Your task to perform on an android device: Search for razer thresher on ebay, select the first entry, and add it to the cart. Image 0: 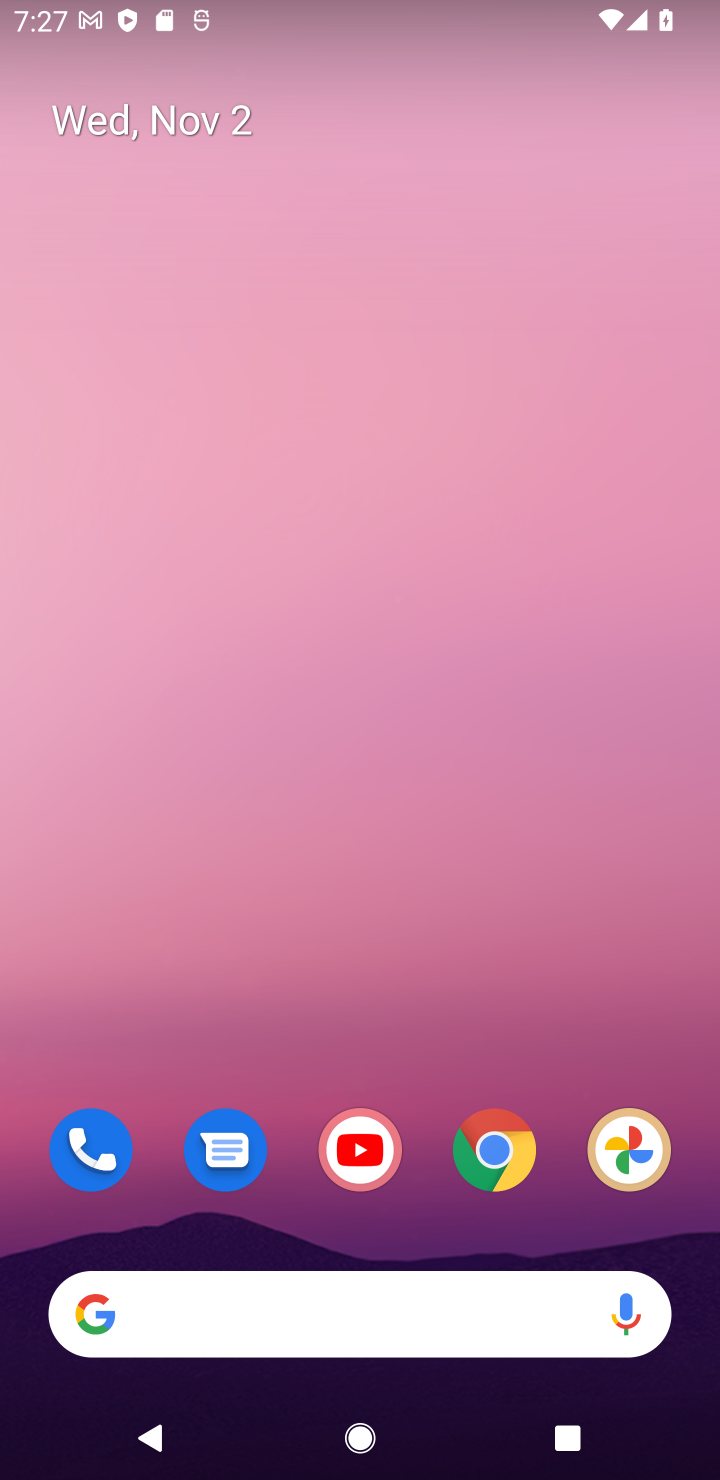
Step 0: click (500, 1144)
Your task to perform on an android device: Search for razer thresher on ebay, select the first entry, and add it to the cart. Image 1: 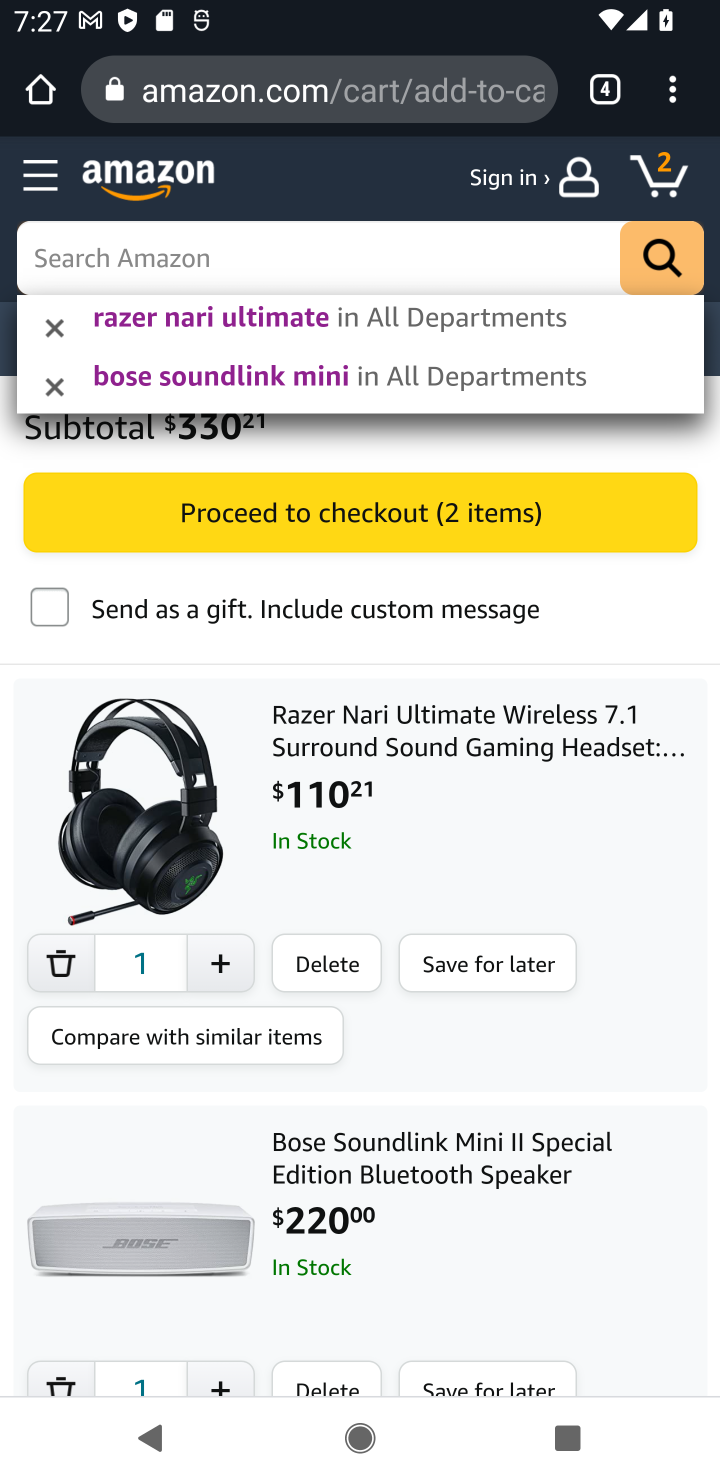
Step 1: click (596, 81)
Your task to perform on an android device: Search for razer thresher on ebay, select the first entry, and add it to the cart. Image 2: 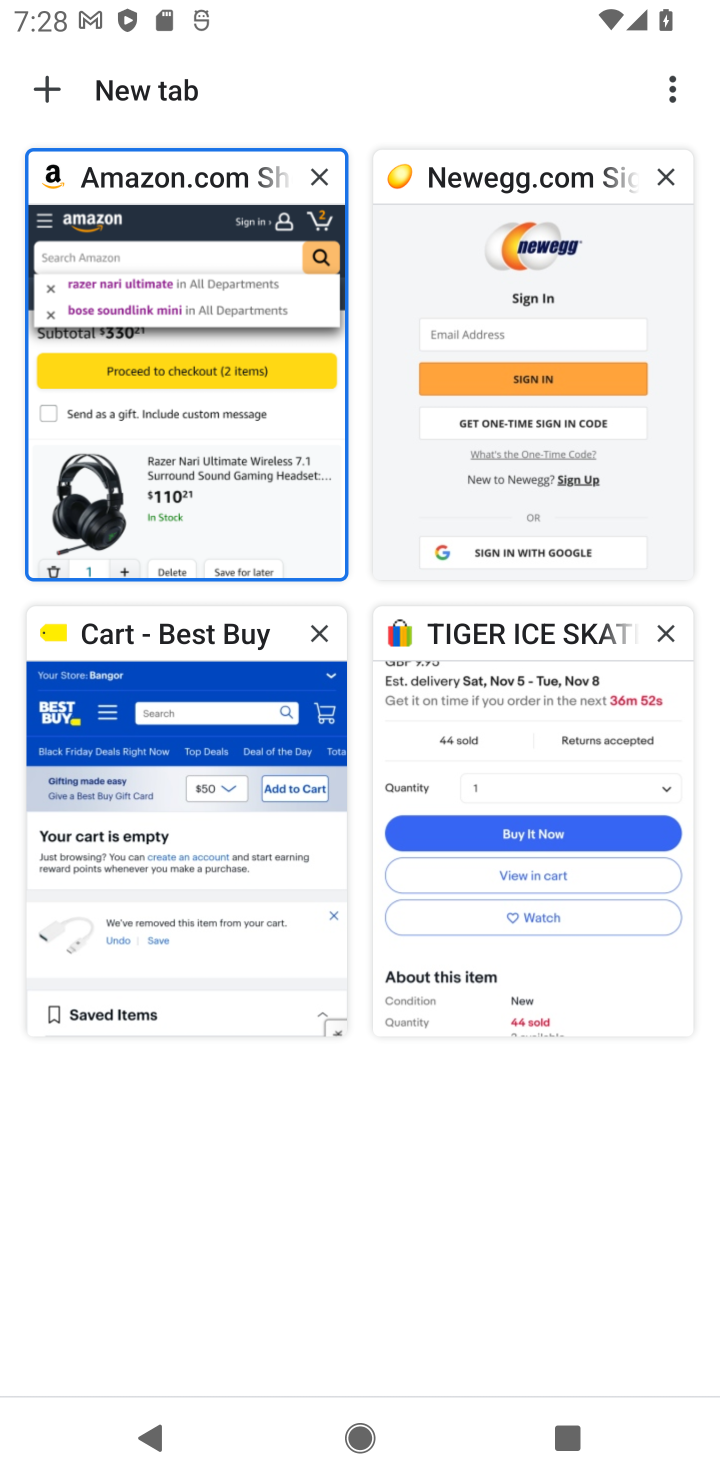
Step 2: click (617, 766)
Your task to perform on an android device: Search for razer thresher on ebay, select the first entry, and add it to the cart. Image 3: 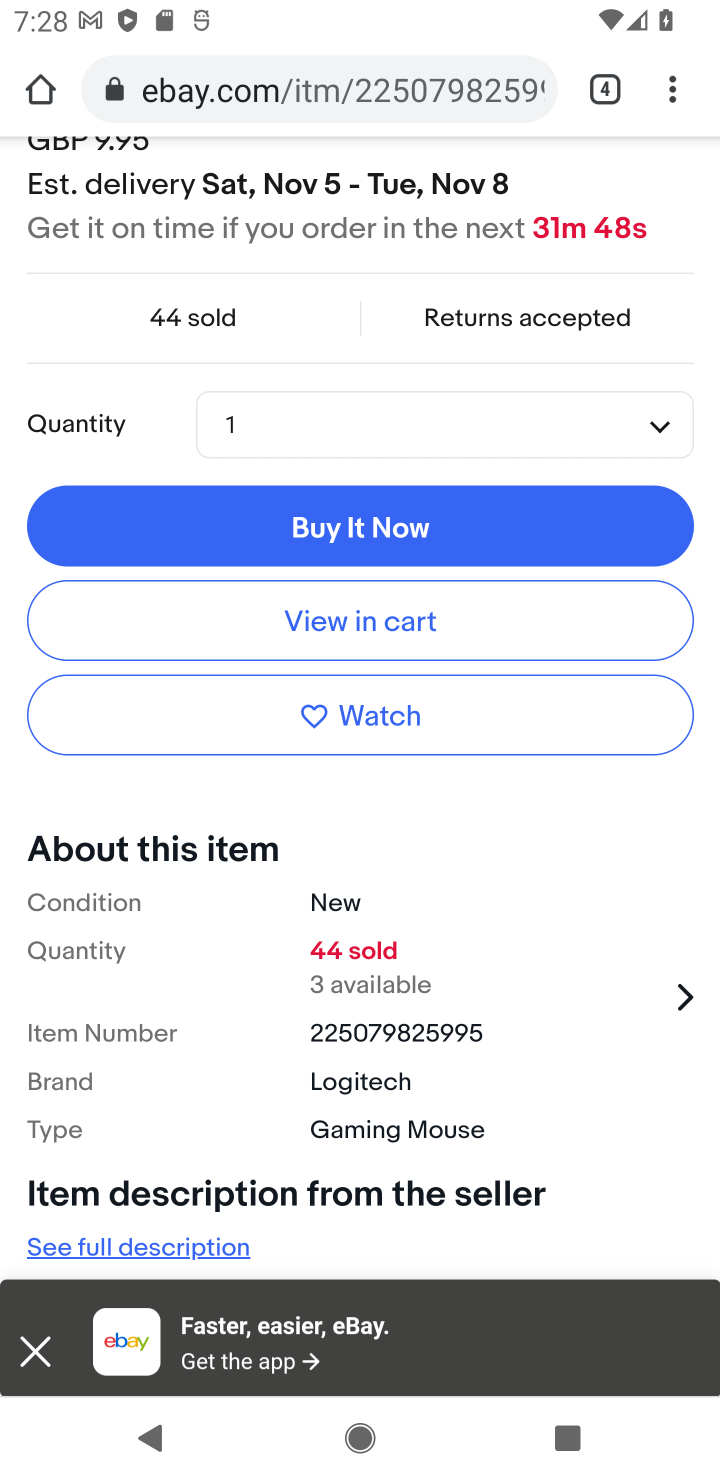
Step 3: drag from (571, 233) to (477, 1286)
Your task to perform on an android device: Search for razer thresher on ebay, select the first entry, and add it to the cart. Image 4: 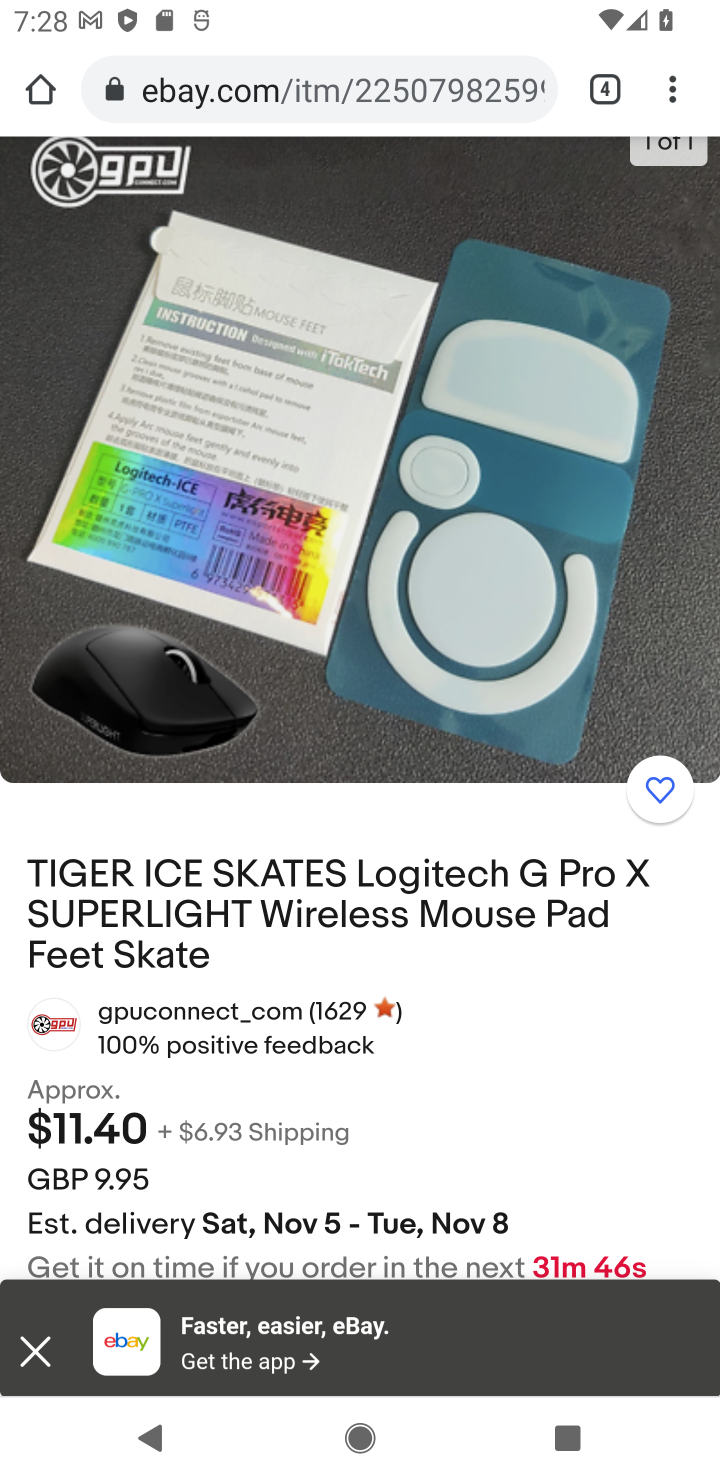
Step 4: click (507, 1236)
Your task to perform on an android device: Search for razer thresher on ebay, select the first entry, and add it to the cart. Image 5: 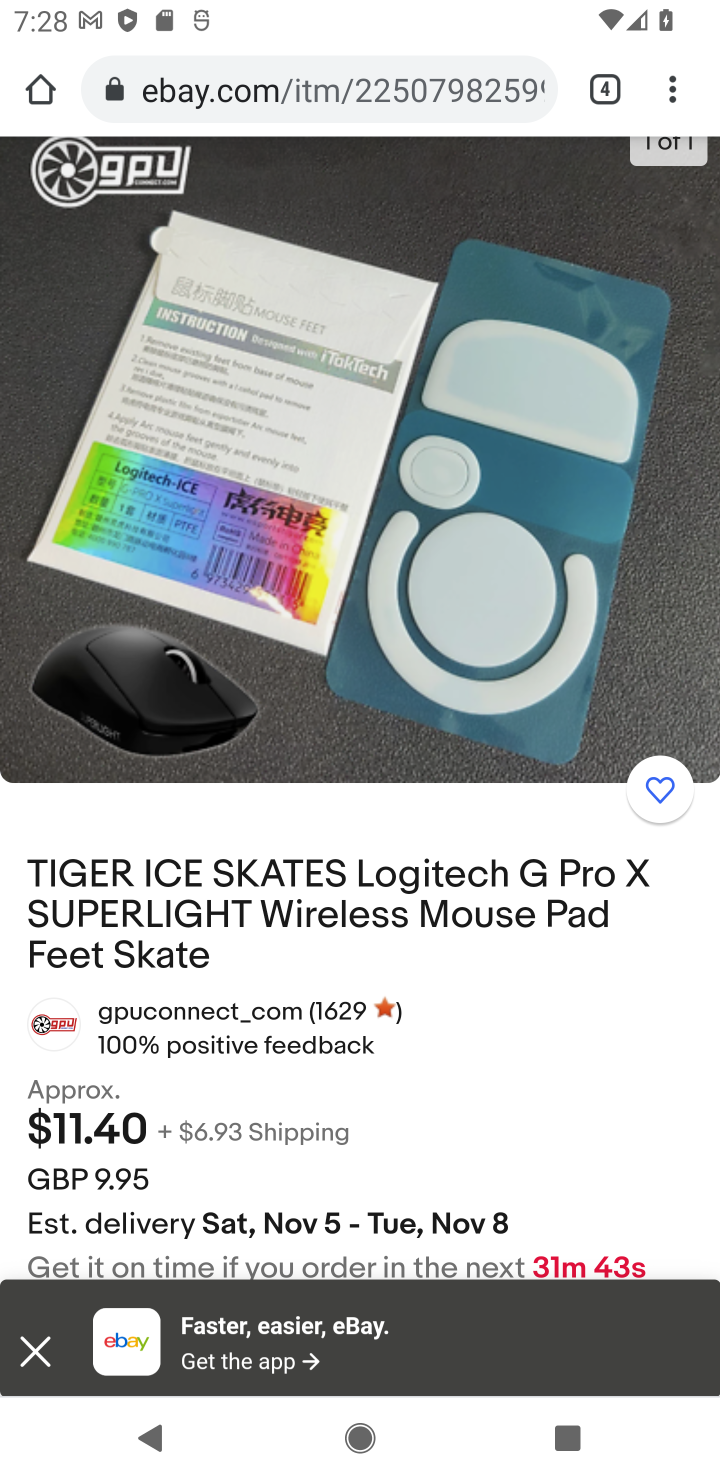
Step 5: drag from (506, 231) to (449, 1135)
Your task to perform on an android device: Search for razer thresher on ebay, select the first entry, and add it to the cart. Image 6: 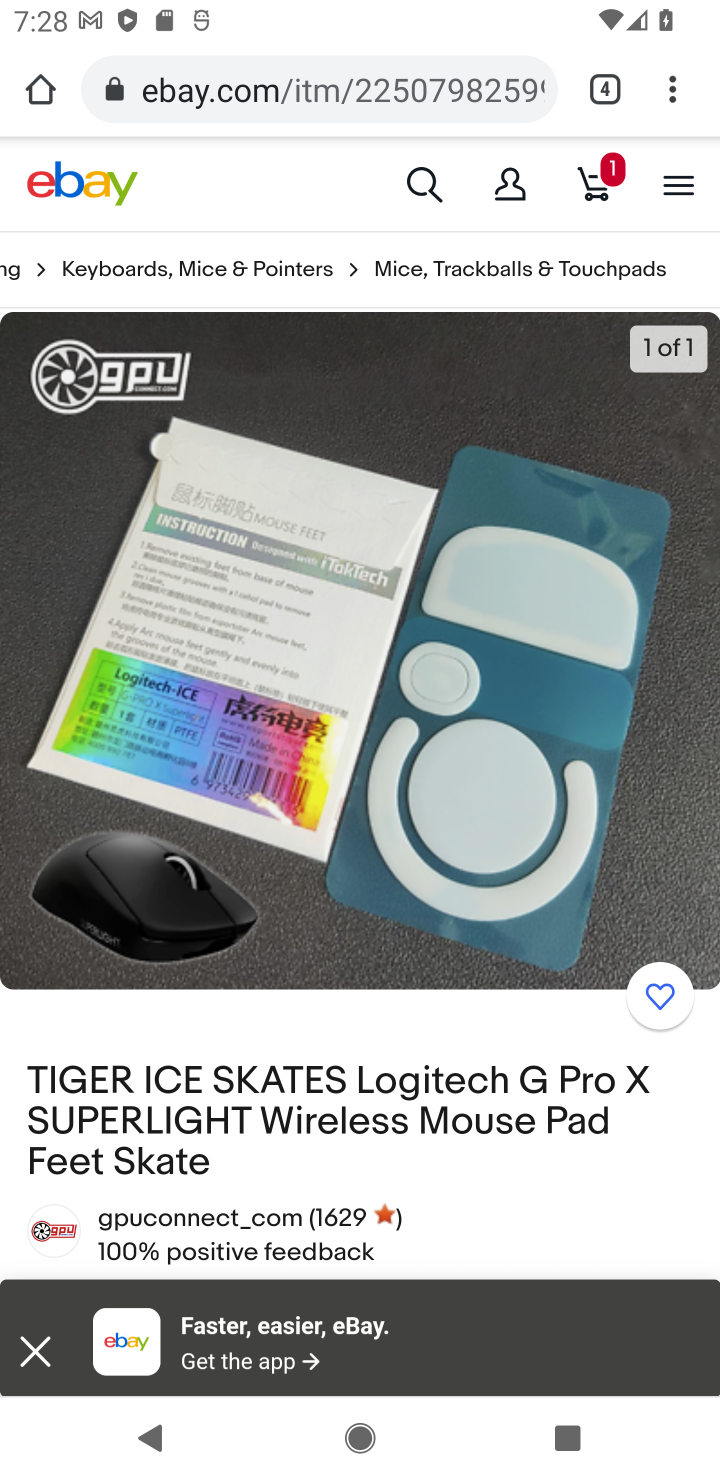
Step 6: click (418, 183)
Your task to perform on an android device: Search for razer thresher on ebay, select the first entry, and add it to the cart. Image 7: 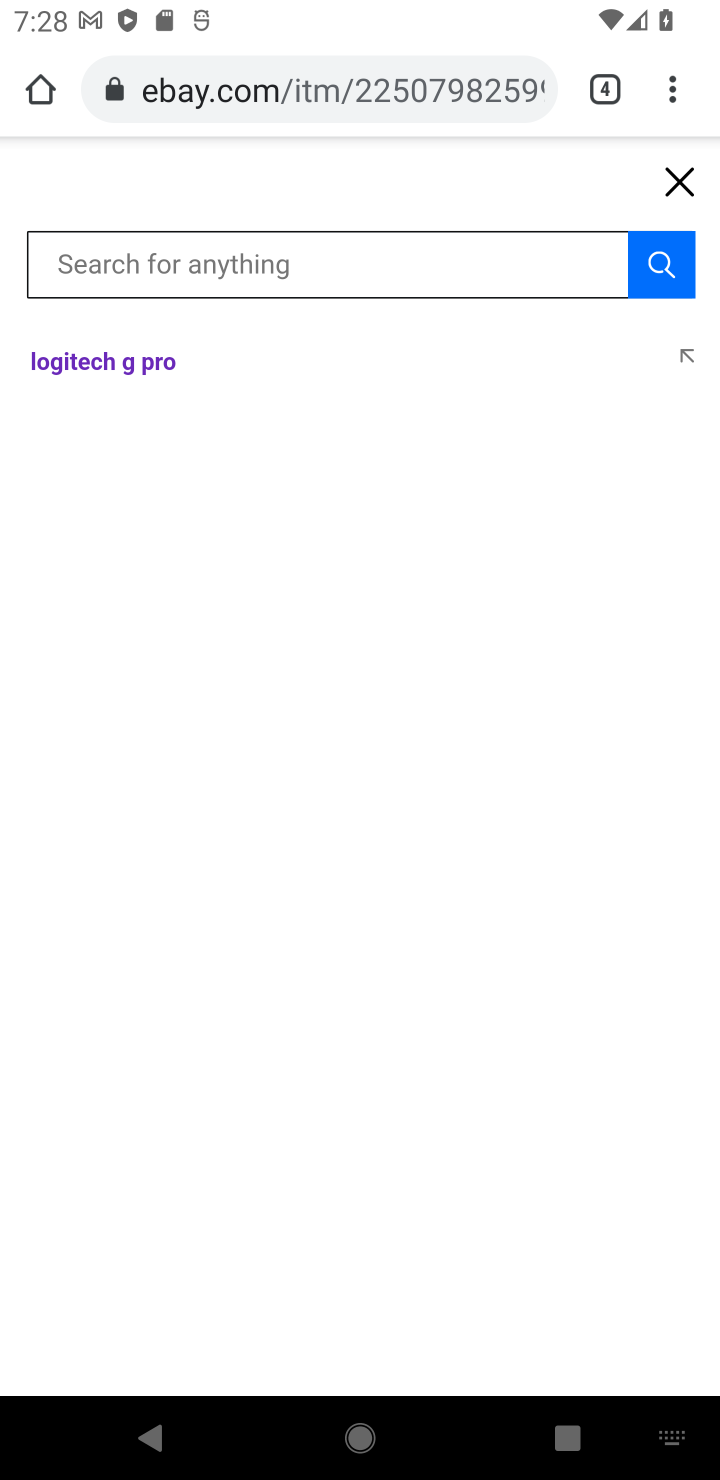
Step 7: click (495, 271)
Your task to perform on an android device: Search for razer thresher on ebay, select the first entry, and add it to the cart. Image 8: 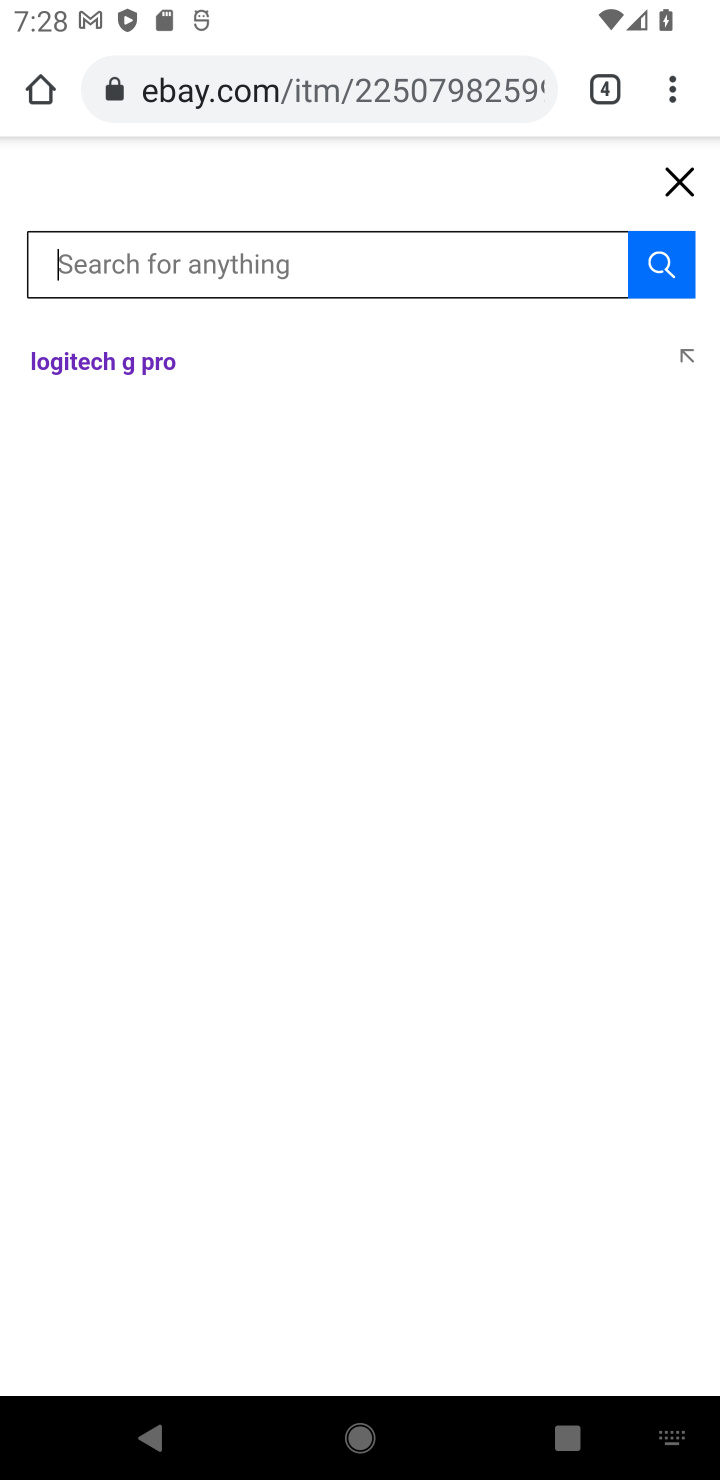
Step 8: type "razer thresher"
Your task to perform on an android device: Search for razer thresher on ebay, select the first entry, and add it to the cart. Image 9: 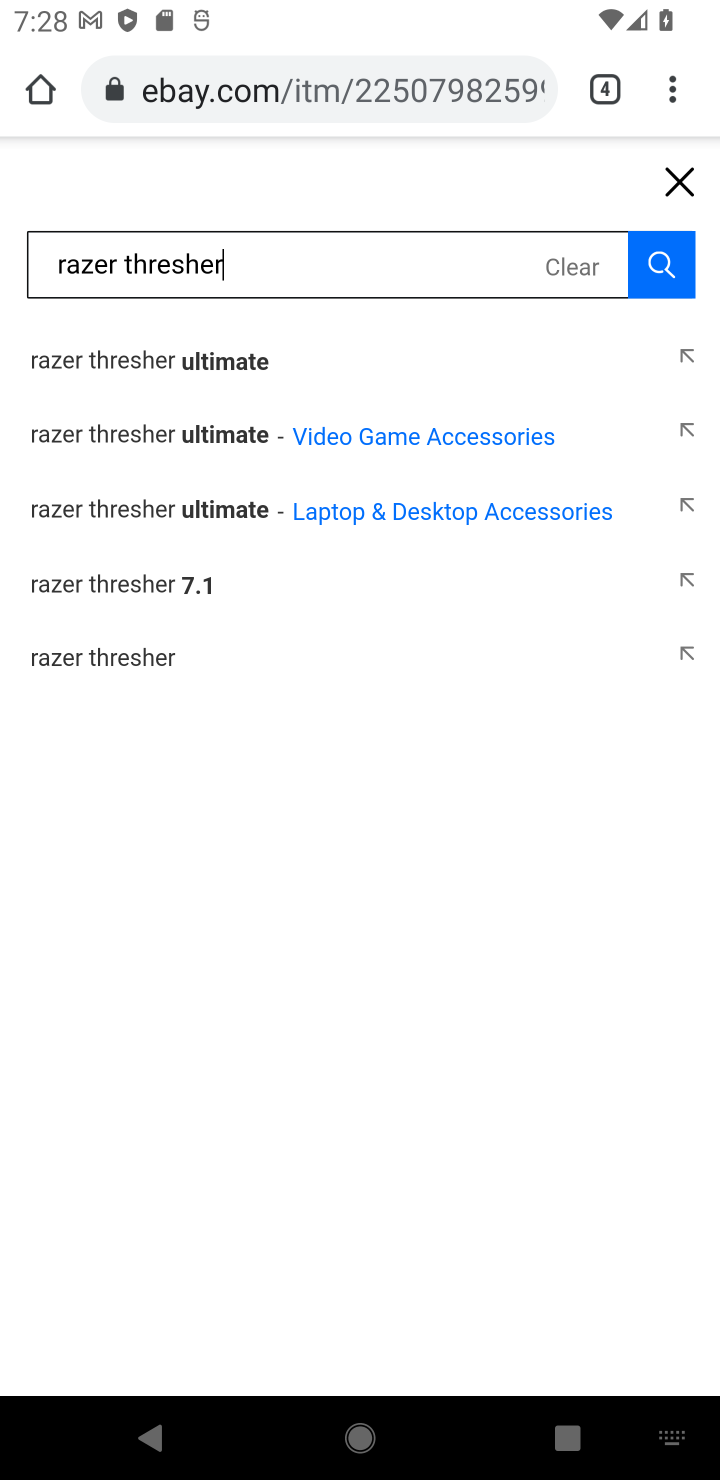
Step 9: click (103, 352)
Your task to perform on an android device: Search for razer thresher on ebay, select the first entry, and add it to the cart. Image 10: 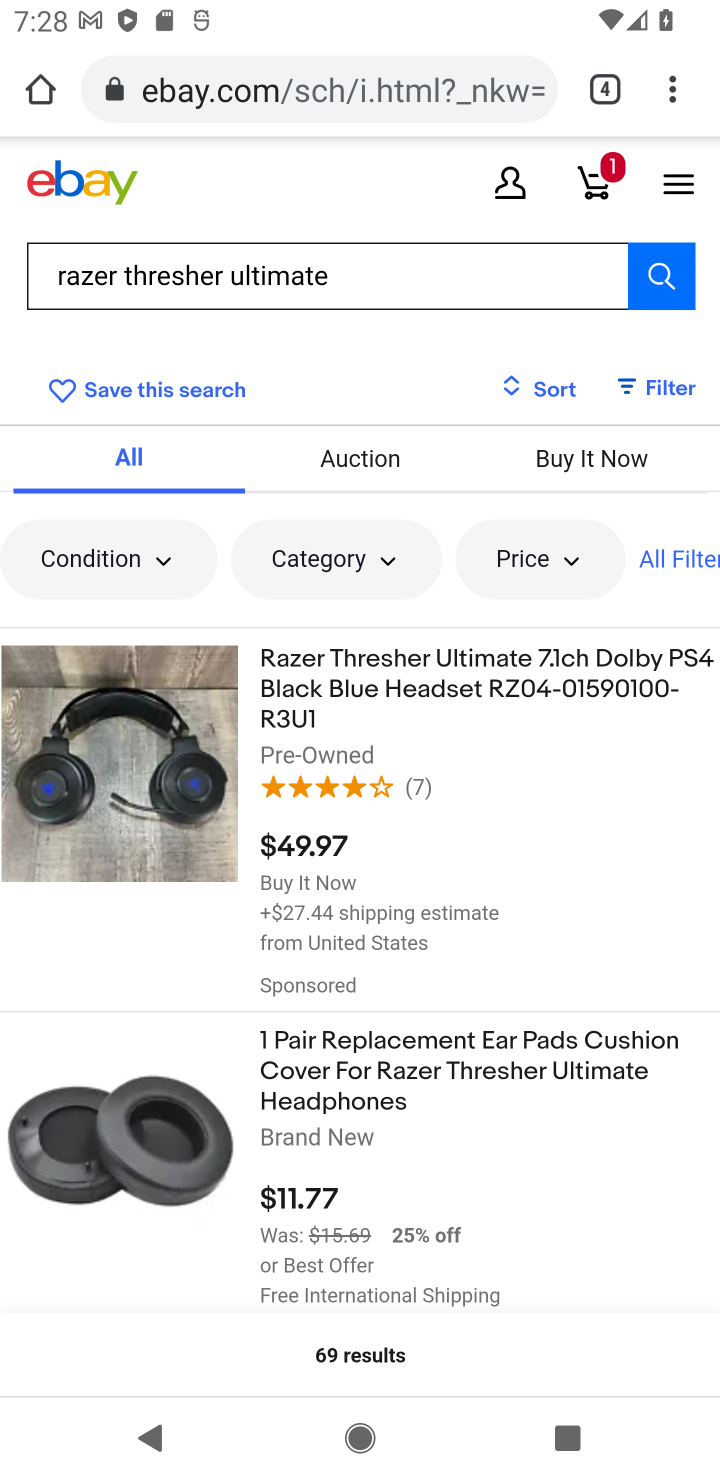
Step 10: click (348, 655)
Your task to perform on an android device: Search for razer thresher on ebay, select the first entry, and add it to the cart. Image 11: 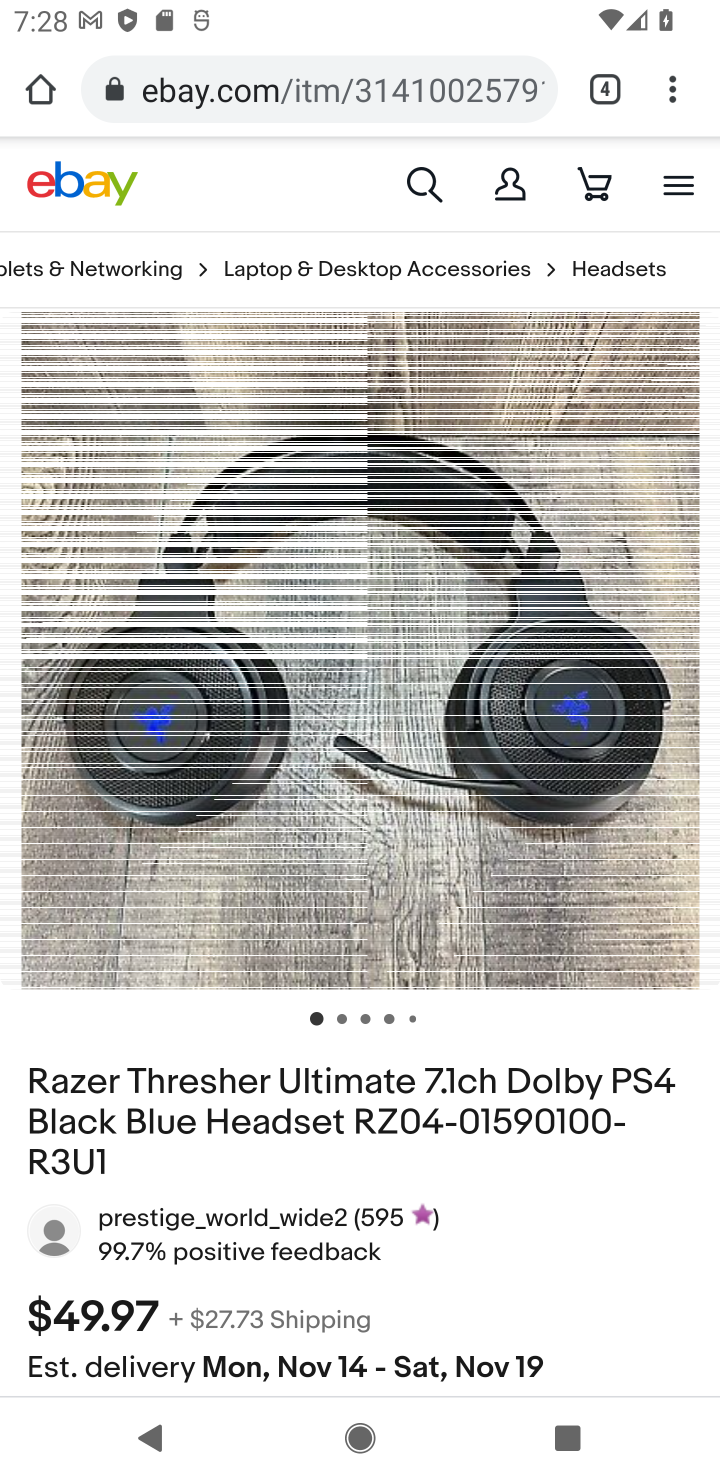
Step 11: drag from (545, 1138) to (625, 566)
Your task to perform on an android device: Search for razer thresher on ebay, select the first entry, and add it to the cart. Image 12: 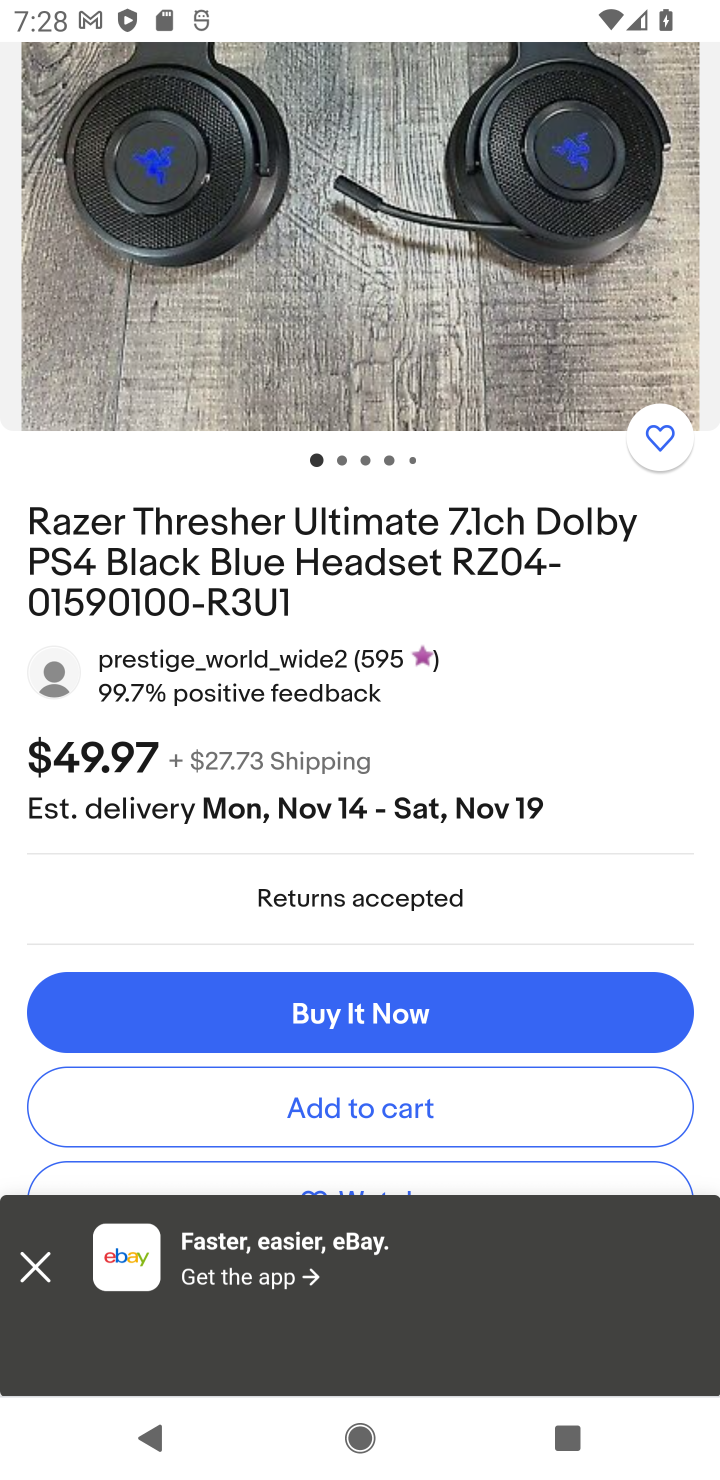
Step 12: click (413, 1092)
Your task to perform on an android device: Search for razer thresher on ebay, select the first entry, and add it to the cart. Image 13: 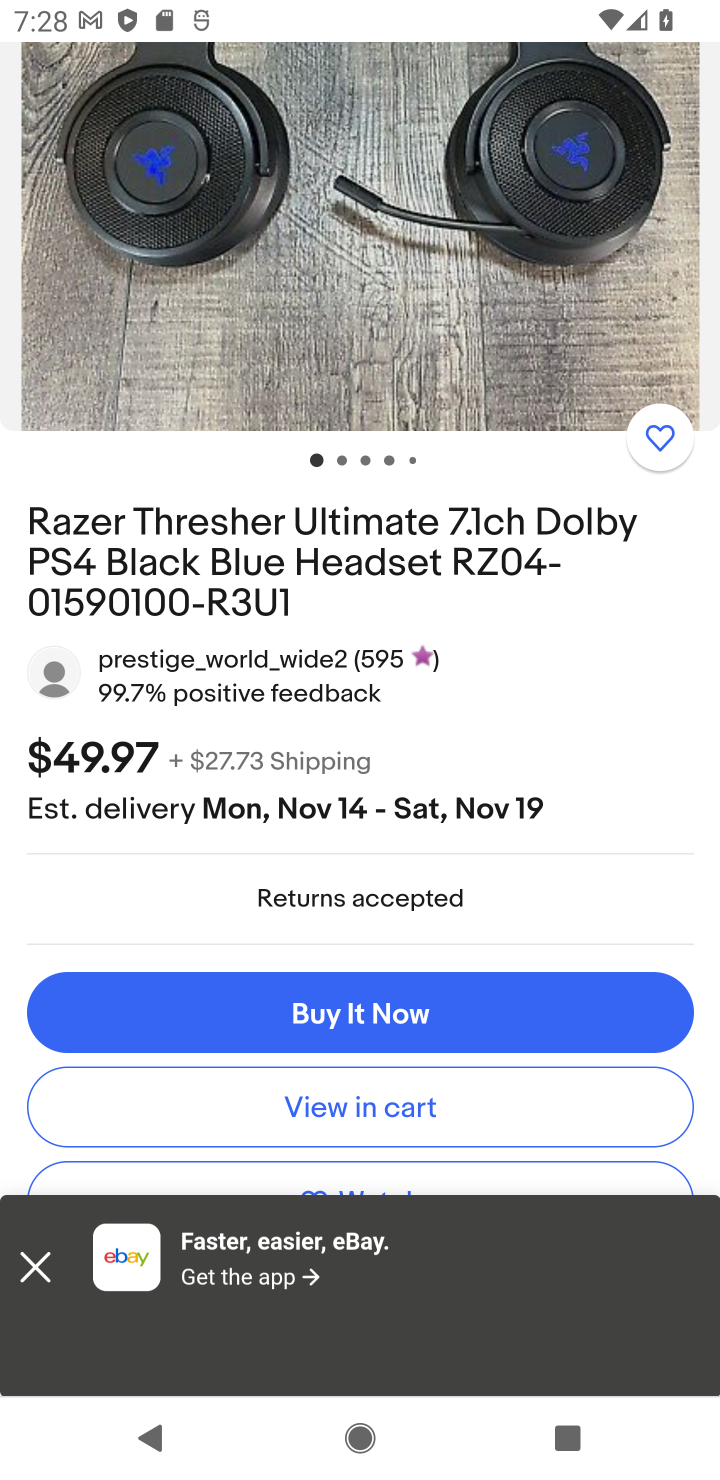
Step 13: task complete